Your task to perform on an android device: delete location history Image 0: 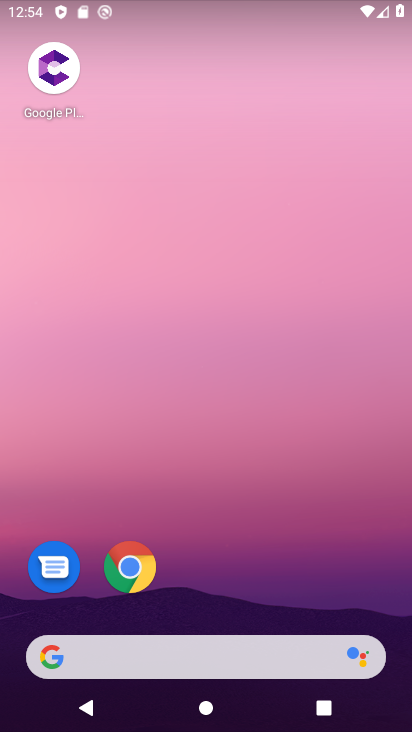
Step 0: drag from (206, 579) to (249, 25)
Your task to perform on an android device: delete location history Image 1: 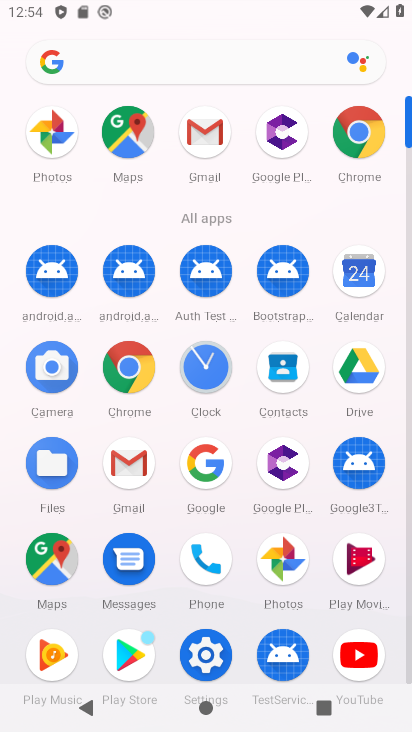
Step 1: click (68, 565)
Your task to perform on an android device: delete location history Image 2: 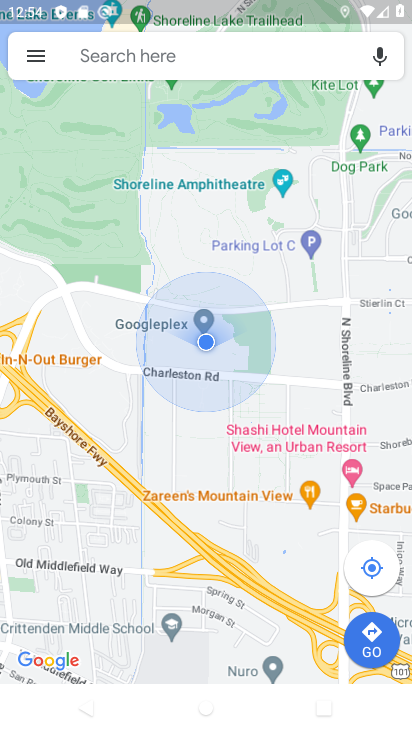
Step 2: click (32, 51)
Your task to perform on an android device: delete location history Image 3: 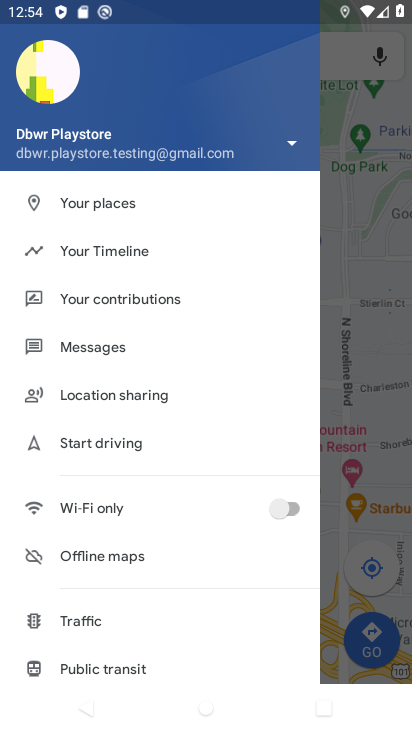
Step 3: click (137, 247)
Your task to perform on an android device: delete location history Image 4: 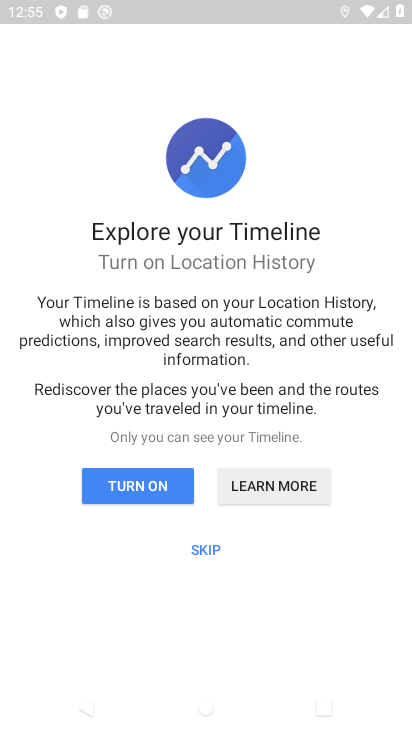
Step 4: click (210, 551)
Your task to perform on an android device: delete location history Image 5: 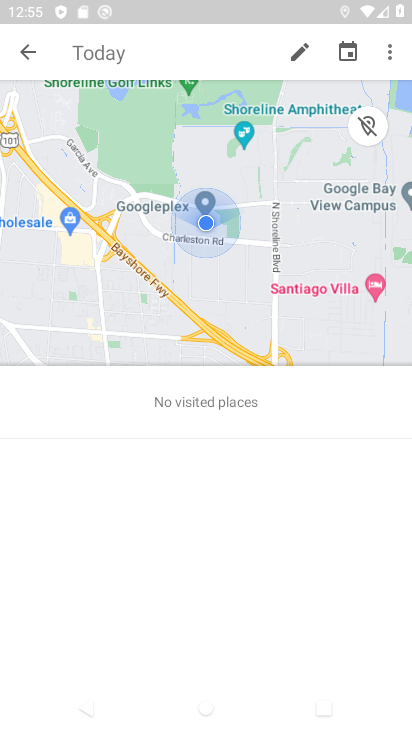
Step 5: click (381, 45)
Your task to perform on an android device: delete location history Image 6: 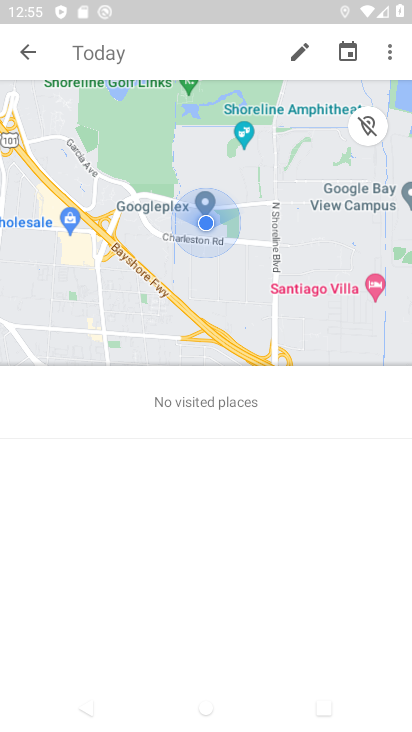
Step 6: click (394, 55)
Your task to perform on an android device: delete location history Image 7: 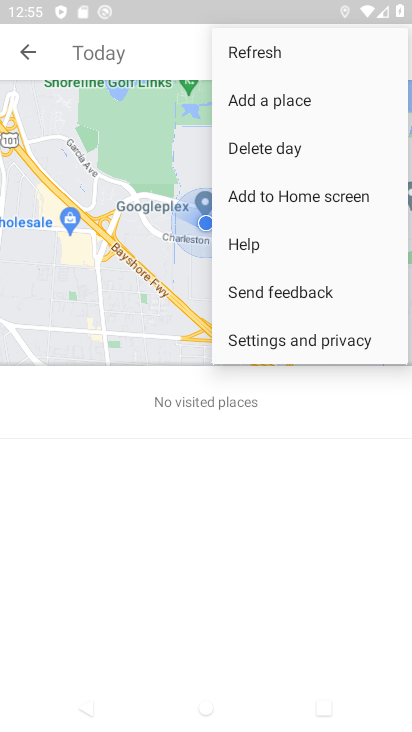
Step 7: click (300, 346)
Your task to perform on an android device: delete location history Image 8: 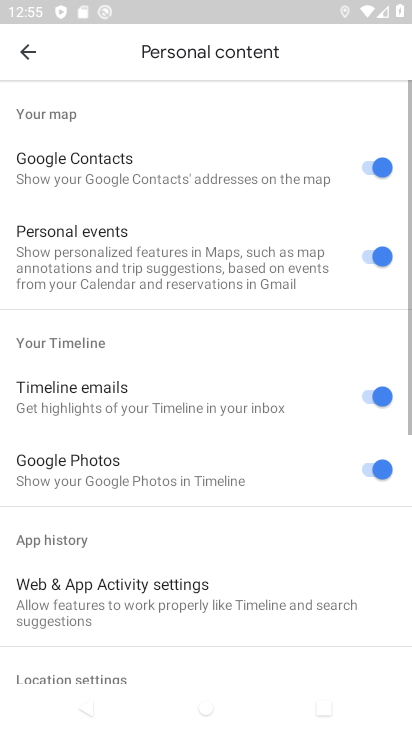
Step 8: drag from (196, 635) to (258, 224)
Your task to perform on an android device: delete location history Image 9: 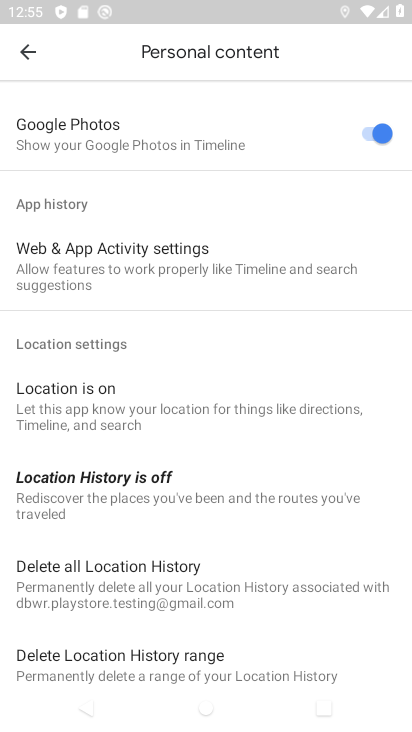
Step 9: click (207, 605)
Your task to perform on an android device: delete location history Image 10: 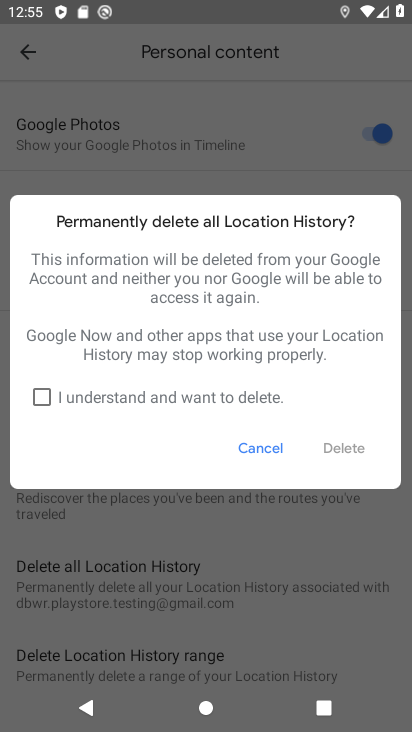
Step 10: click (49, 385)
Your task to perform on an android device: delete location history Image 11: 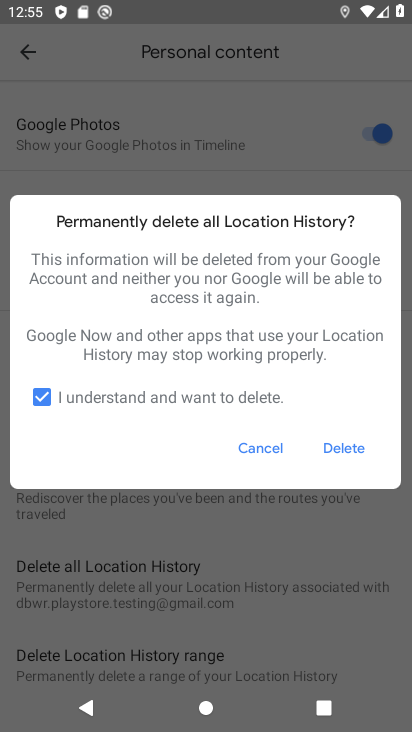
Step 11: click (340, 451)
Your task to perform on an android device: delete location history Image 12: 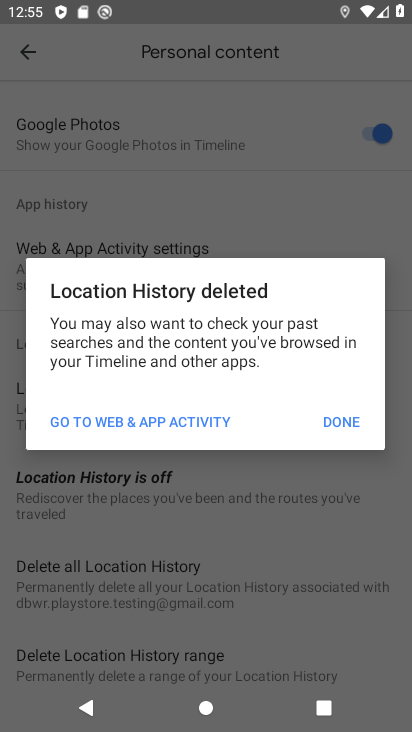
Step 12: click (327, 415)
Your task to perform on an android device: delete location history Image 13: 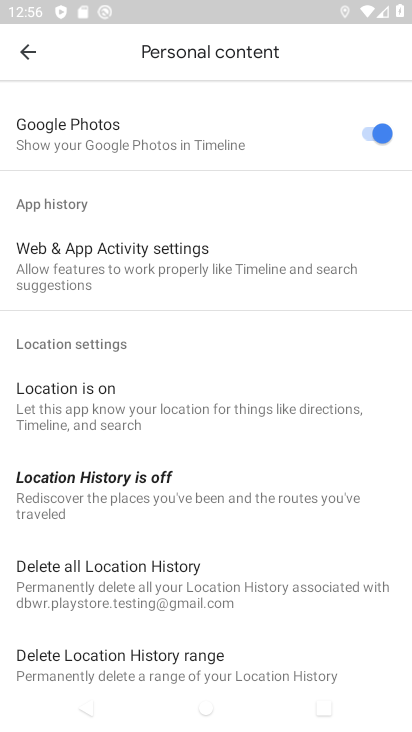
Step 13: task complete